Your task to perform on an android device: Go to notification settings Image 0: 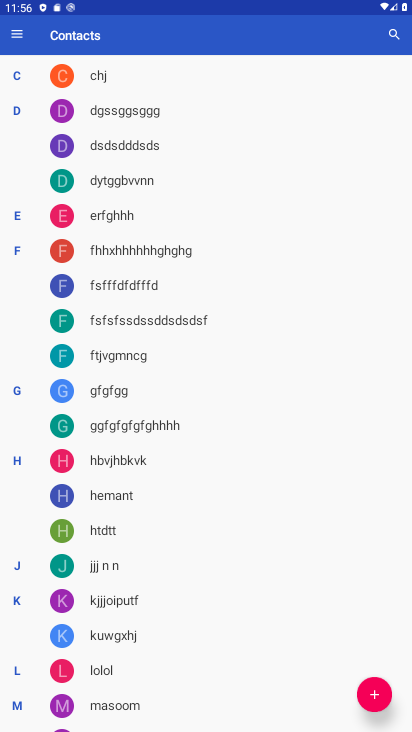
Step 0: press home button
Your task to perform on an android device: Go to notification settings Image 1: 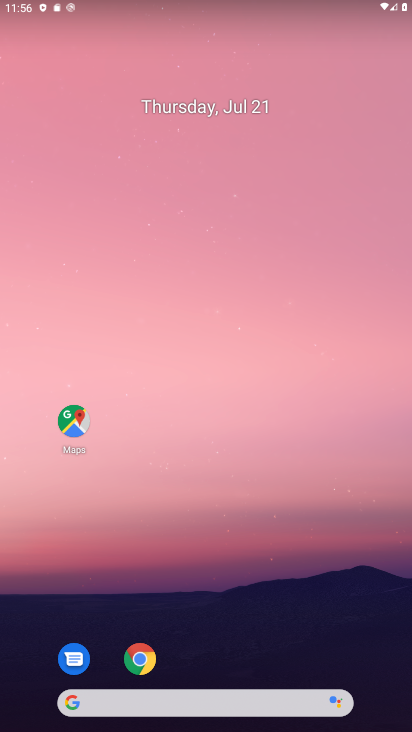
Step 1: task complete